Your task to perform on an android device: What's on my calendar today? Image 0: 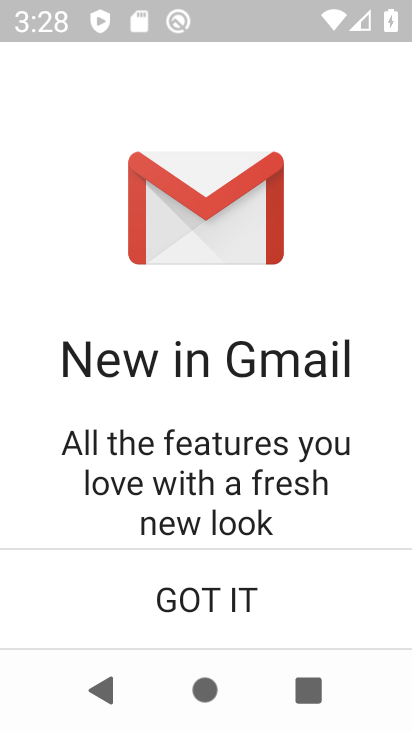
Step 0: press home button
Your task to perform on an android device: What's on my calendar today? Image 1: 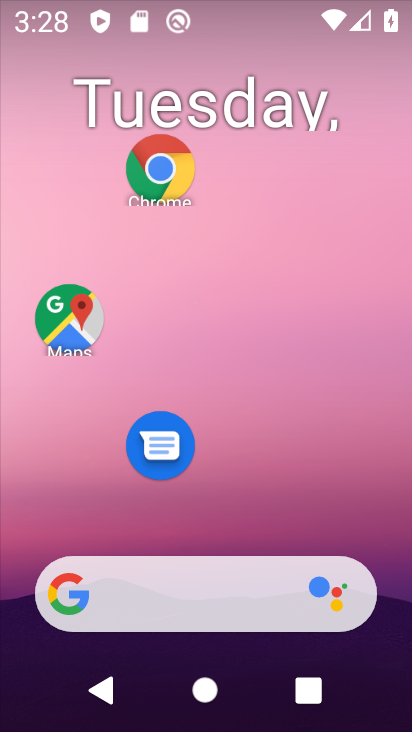
Step 1: drag from (271, 510) to (280, 120)
Your task to perform on an android device: What's on my calendar today? Image 2: 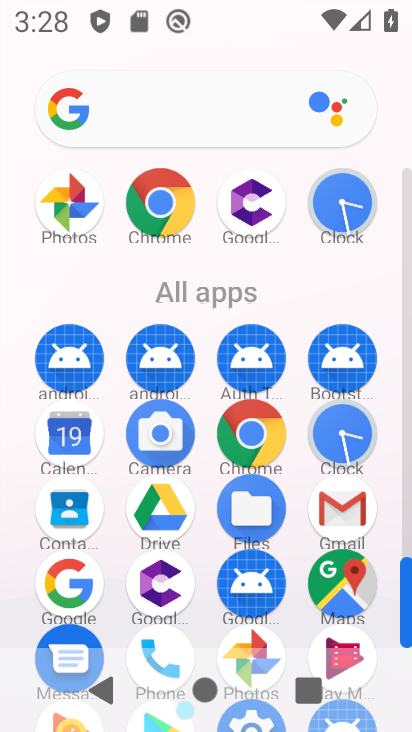
Step 2: click (63, 432)
Your task to perform on an android device: What's on my calendar today? Image 3: 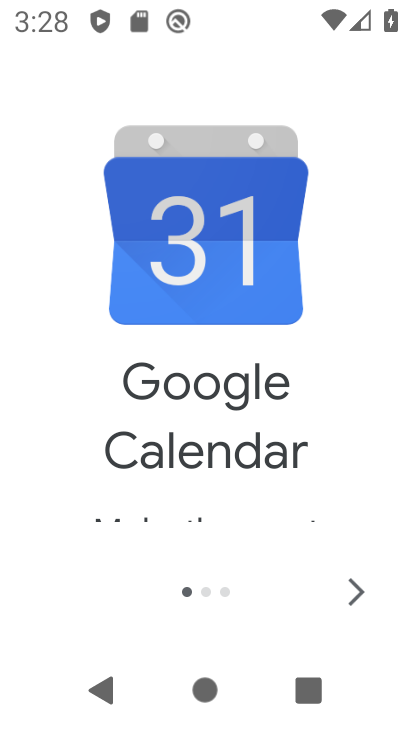
Step 3: click (350, 588)
Your task to perform on an android device: What's on my calendar today? Image 4: 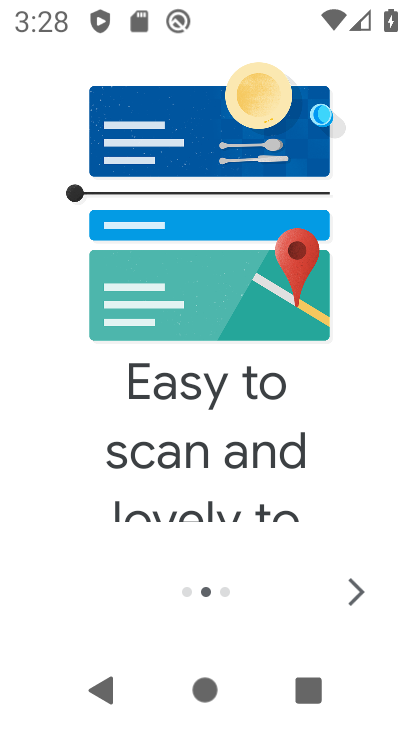
Step 4: click (358, 592)
Your task to perform on an android device: What's on my calendar today? Image 5: 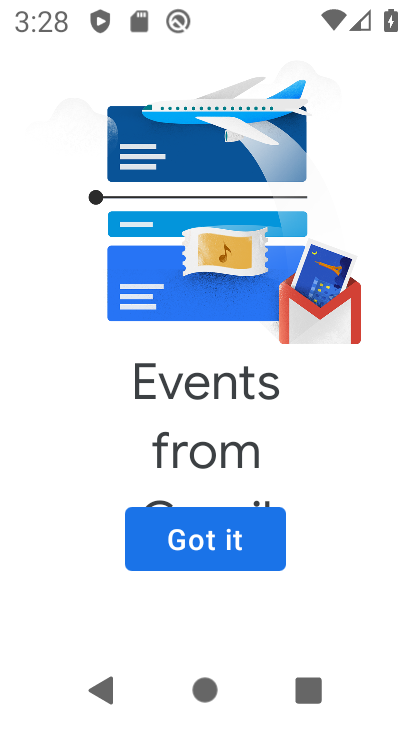
Step 5: click (218, 547)
Your task to perform on an android device: What's on my calendar today? Image 6: 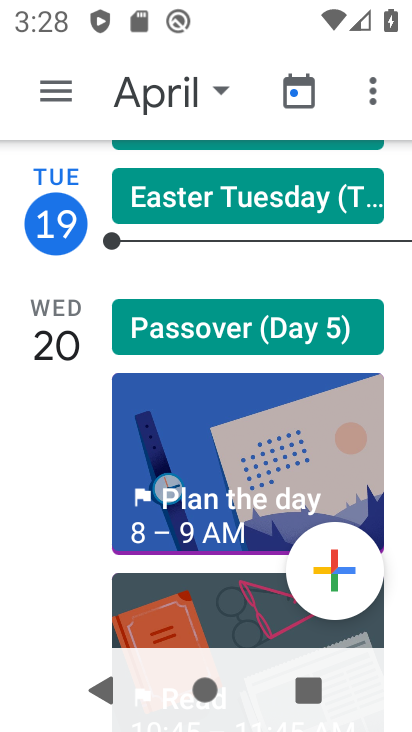
Step 6: click (222, 91)
Your task to perform on an android device: What's on my calendar today? Image 7: 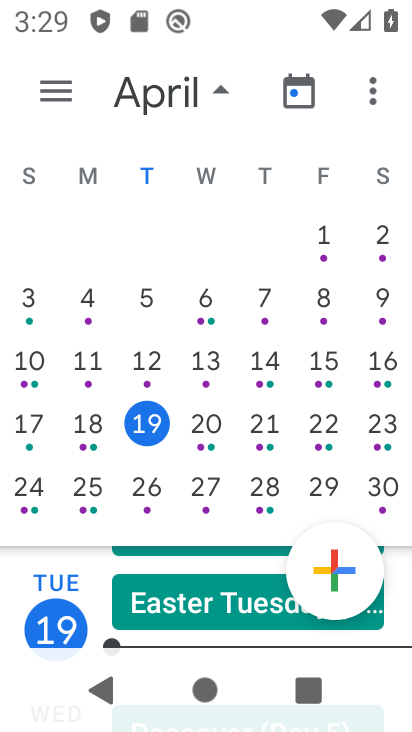
Step 7: click (151, 420)
Your task to perform on an android device: What's on my calendar today? Image 8: 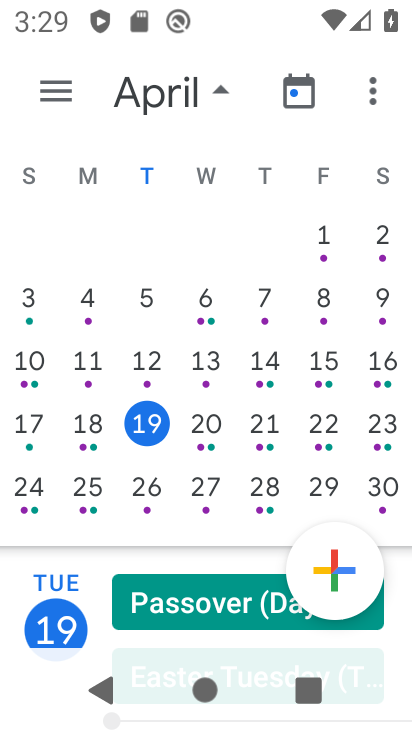
Step 8: click (50, 95)
Your task to perform on an android device: What's on my calendar today? Image 9: 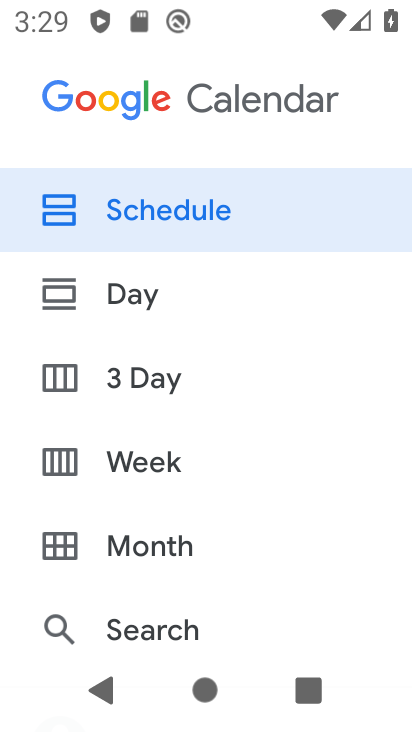
Step 9: click (128, 290)
Your task to perform on an android device: What's on my calendar today? Image 10: 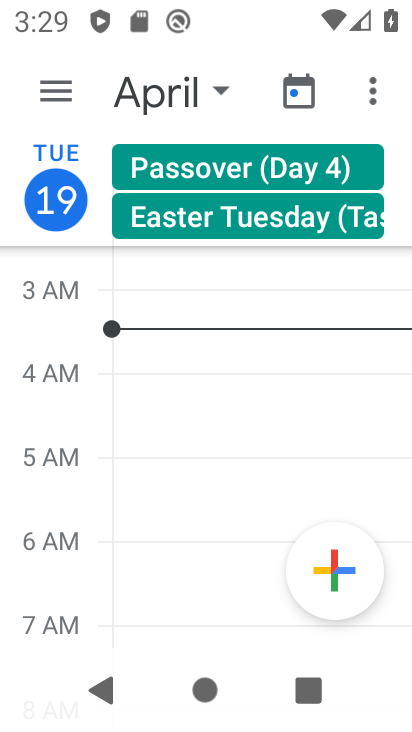
Step 10: task complete